Your task to perform on an android device: Open Chrome and go to settings Image 0: 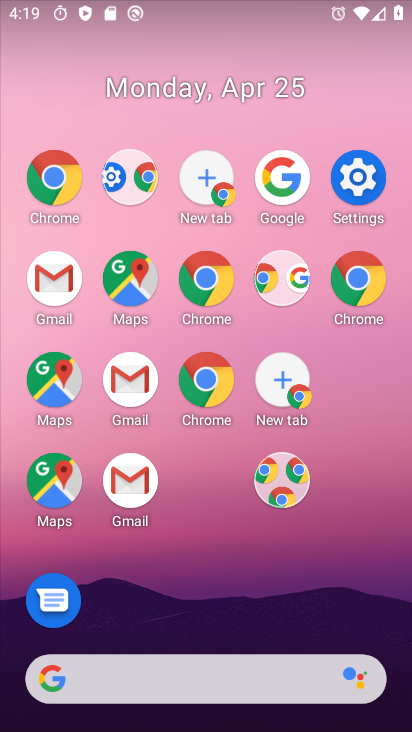
Step 0: click (232, 249)
Your task to perform on an android device: Open Chrome and go to settings Image 1: 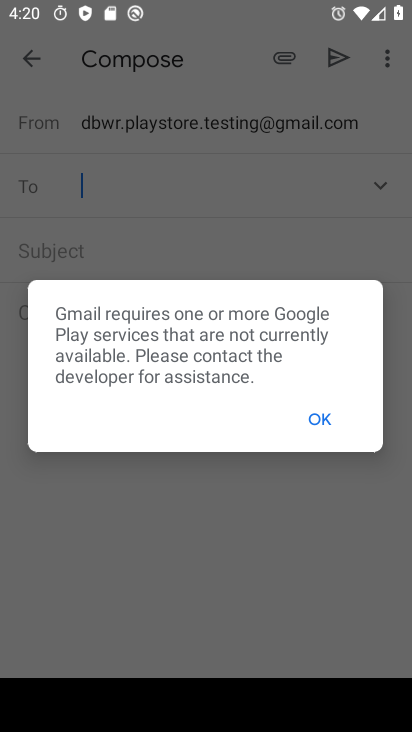
Step 1: click (316, 408)
Your task to perform on an android device: Open Chrome and go to settings Image 2: 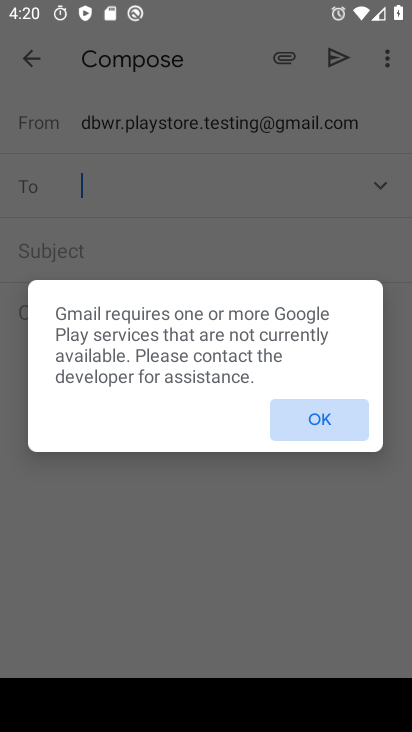
Step 2: click (316, 404)
Your task to perform on an android device: Open Chrome and go to settings Image 3: 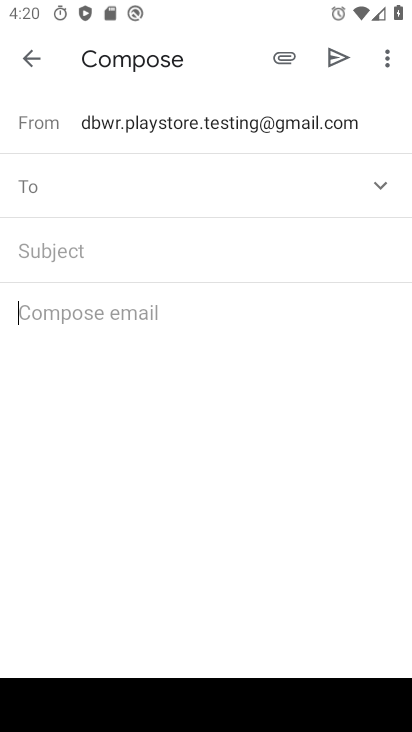
Step 3: click (29, 61)
Your task to perform on an android device: Open Chrome and go to settings Image 4: 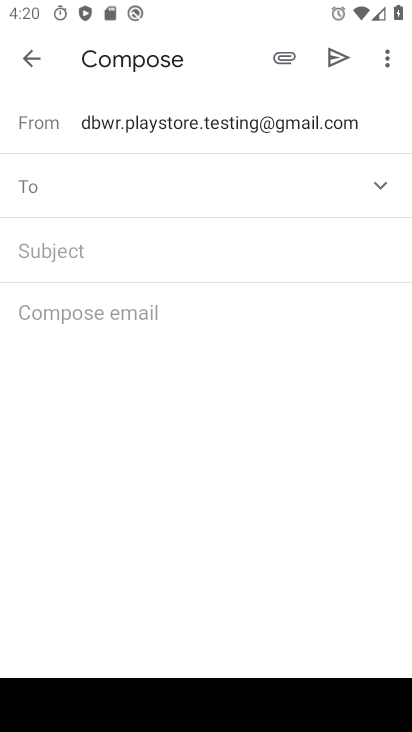
Step 4: click (28, 61)
Your task to perform on an android device: Open Chrome and go to settings Image 5: 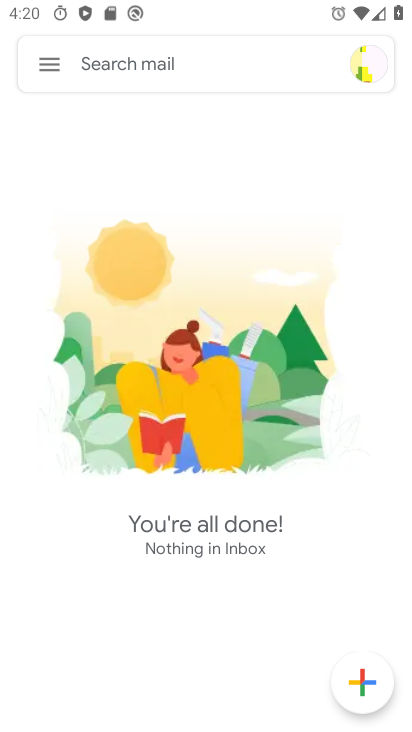
Step 5: press home button
Your task to perform on an android device: Open Chrome and go to settings Image 6: 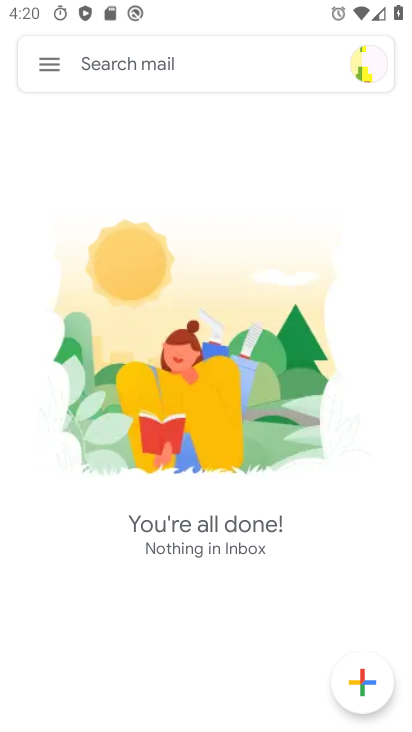
Step 6: press home button
Your task to perform on an android device: Open Chrome and go to settings Image 7: 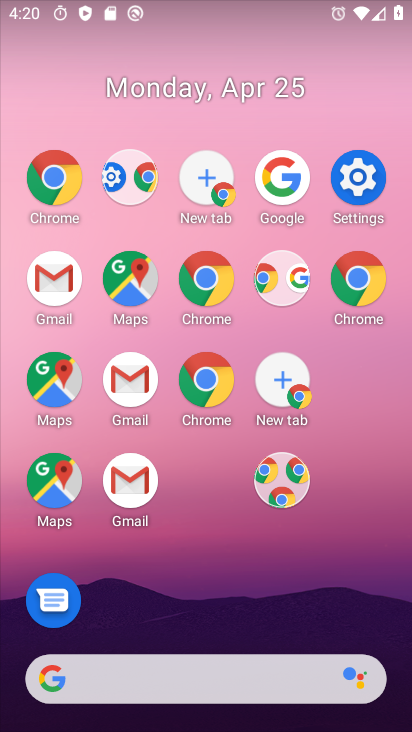
Step 7: drag from (211, 430) to (49, 29)
Your task to perform on an android device: Open Chrome and go to settings Image 8: 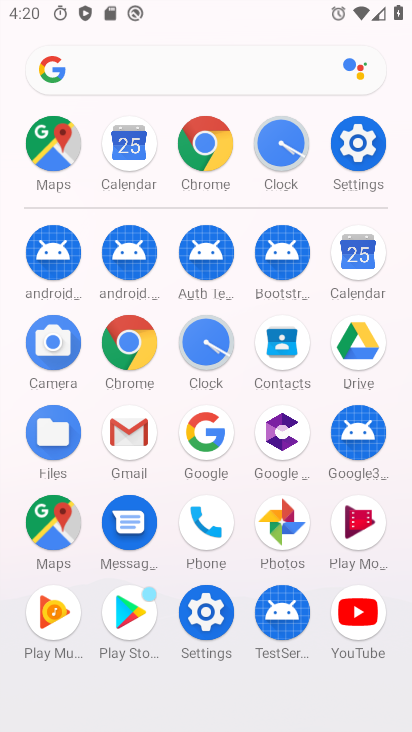
Step 8: click (203, 138)
Your task to perform on an android device: Open Chrome and go to settings Image 9: 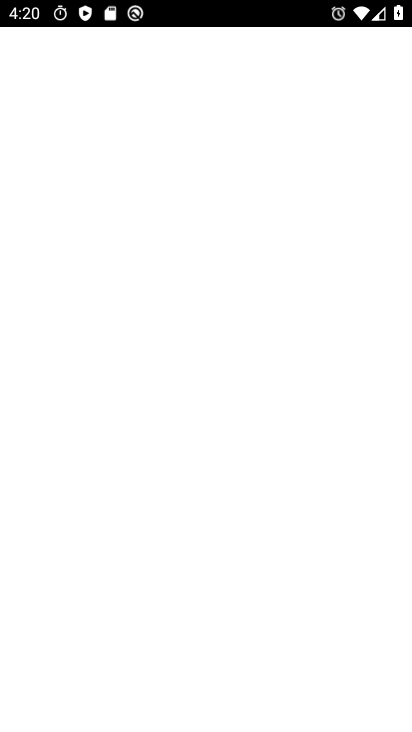
Step 9: click (203, 138)
Your task to perform on an android device: Open Chrome and go to settings Image 10: 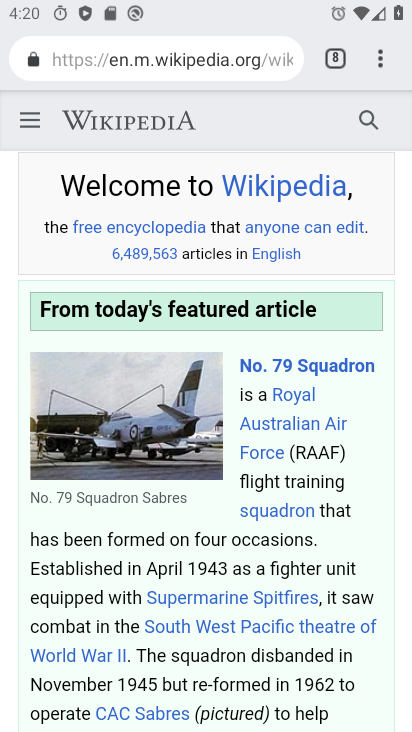
Step 10: click (203, 137)
Your task to perform on an android device: Open Chrome and go to settings Image 11: 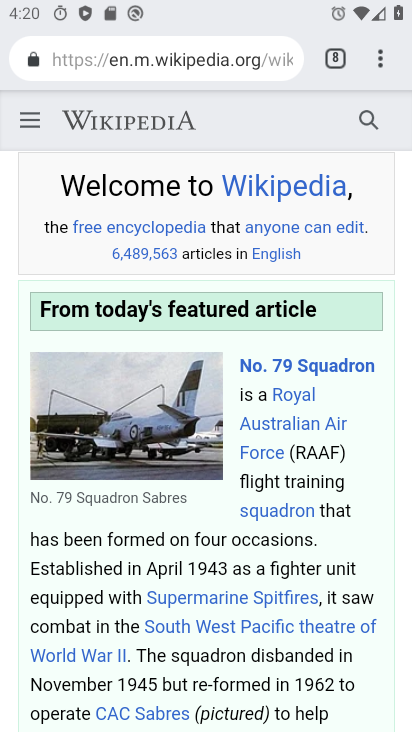
Step 11: drag from (379, 57) to (173, 622)
Your task to perform on an android device: Open Chrome and go to settings Image 12: 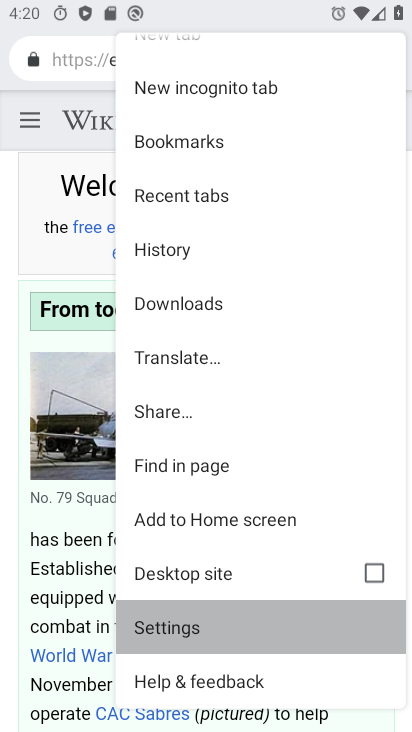
Step 12: click (173, 620)
Your task to perform on an android device: Open Chrome and go to settings Image 13: 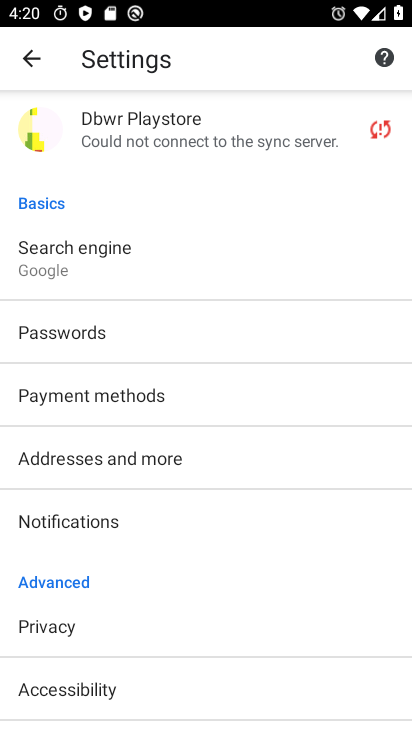
Step 13: drag from (106, 634) to (11, 183)
Your task to perform on an android device: Open Chrome and go to settings Image 14: 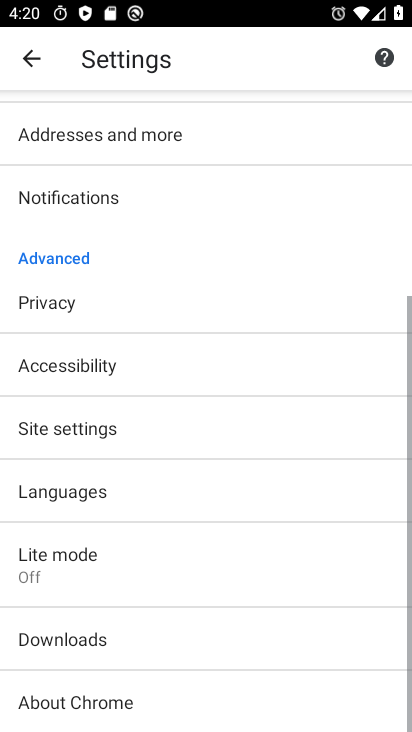
Step 14: drag from (147, 571) to (77, 77)
Your task to perform on an android device: Open Chrome and go to settings Image 15: 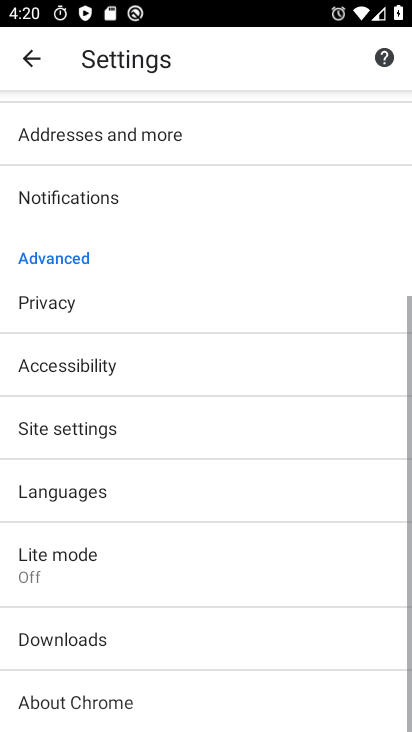
Step 15: drag from (79, 631) to (0, 143)
Your task to perform on an android device: Open Chrome and go to settings Image 16: 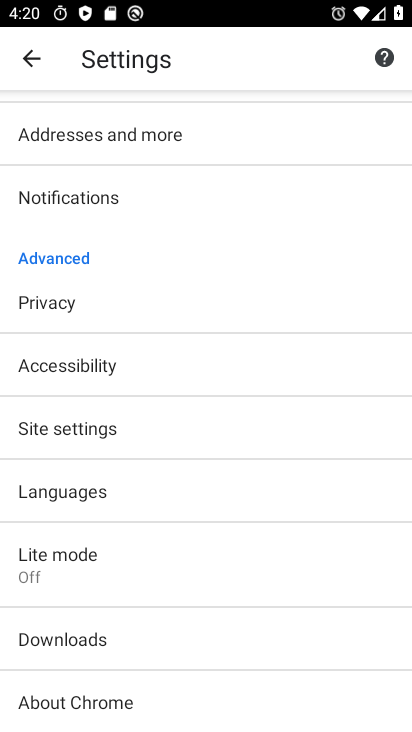
Step 16: click (57, 434)
Your task to perform on an android device: Open Chrome and go to settings Image 17: 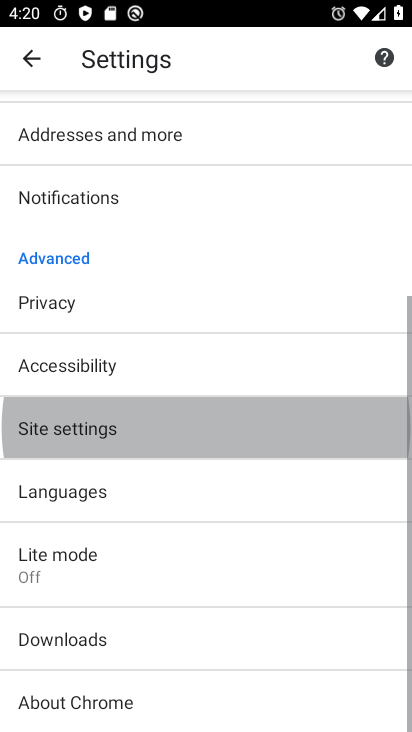
Step 17: click (57, 434)
Your task to perform on an android device: Open Chrome and go to settings Image 18: 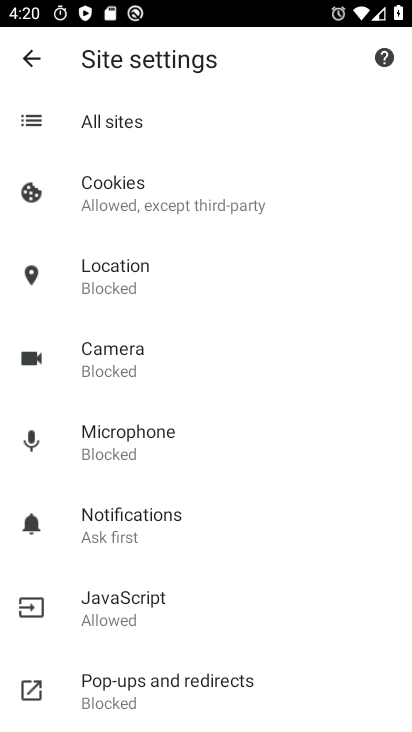
Step 18: task complete